Your task to perform on an android device: turn on translation in the chrome app Image 0: 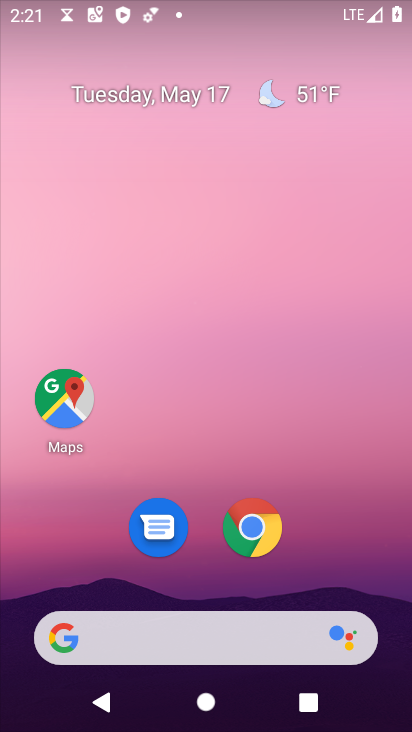
Step 0: click (253, 525)
Your task to perform on an android device: turn on translation in the chrome app Image 1: 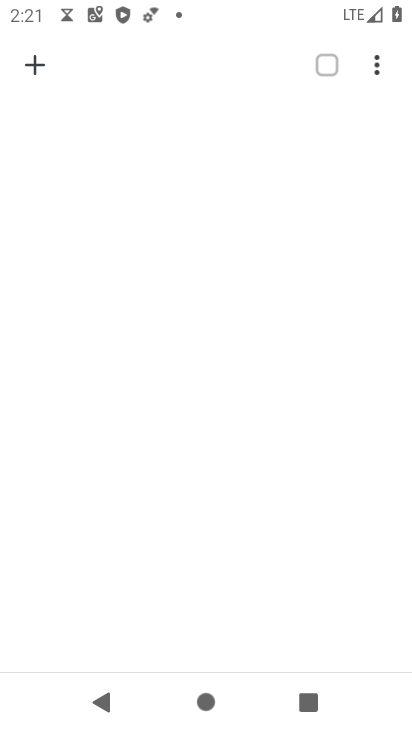
Step 1: click (377, 65)
Your task to perform on an android device: turn on translation in the chrome app Image 2: 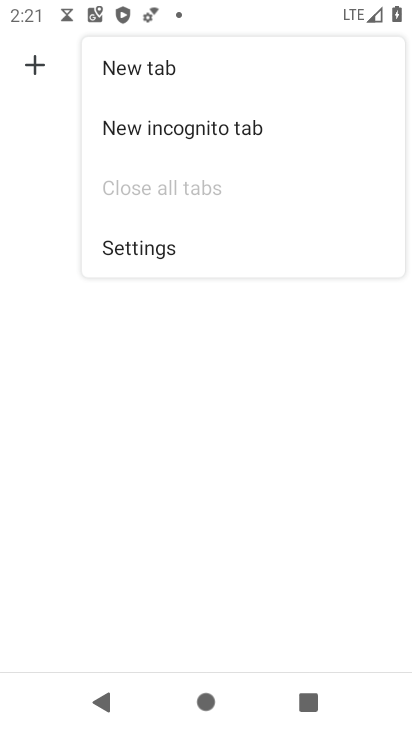
Step 2: click (115, 249)
Your task to perform on an android device: turn on translation in the chrome app Image 3: 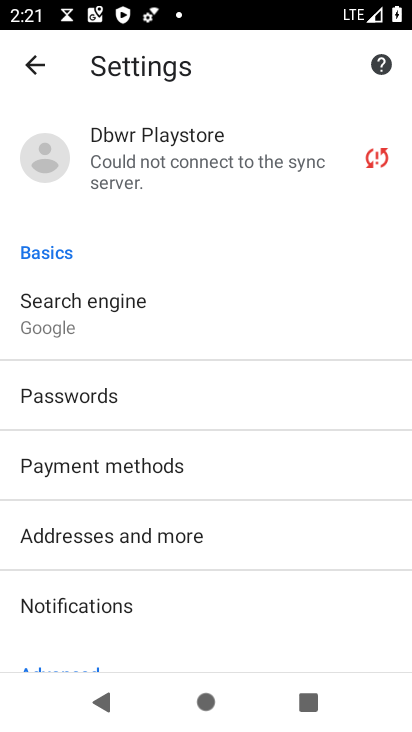
Step 3: drag from (104, 485) to (149, 387)
Your task to perform on an android device: turn on translation in the chrome app Image 4: 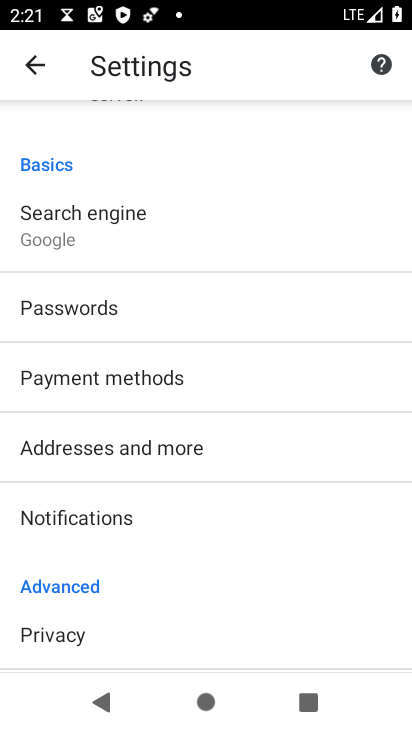
Step 4: drag from (134, 540) to (189, 432)
Your task to perform on an android device: turn on translation in the chrome app Image 5: 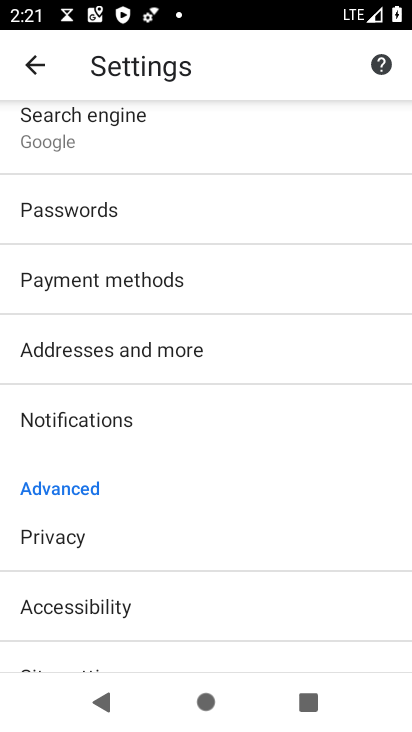
Step 5: drag from (128, 521) to (186, 433)
Your task to perform on an android device: turn on translation in the chrome app Image 6: 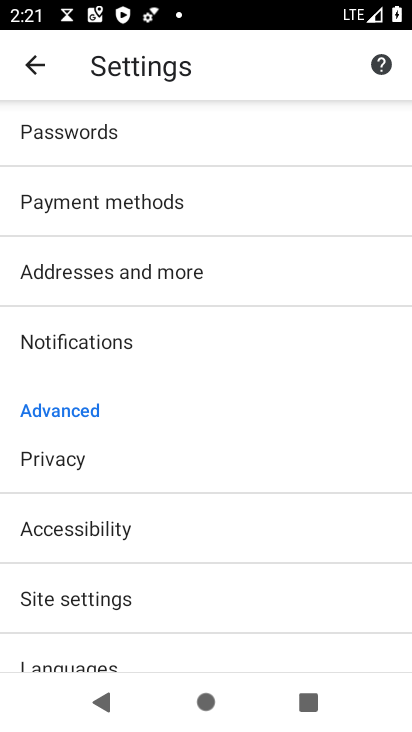
Step 6: drag from (165, 537) to (184, 431)
Your task to perform on an android device: turn on translation in the chrome app Image 7: 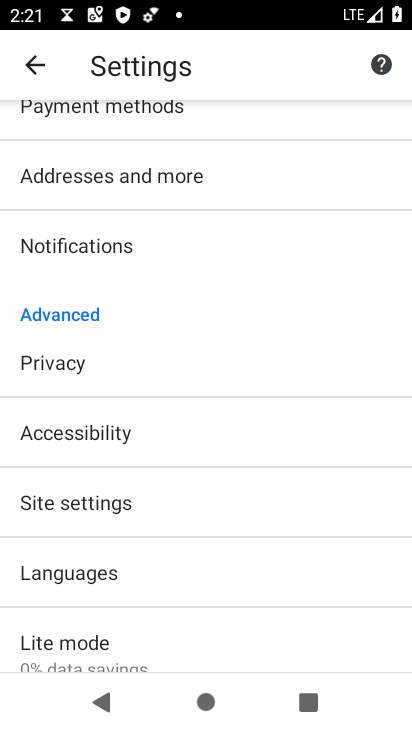
Step 7: click (96, 571)
Your task to perform on an android device: turn on translation in the chrome app Image 8: 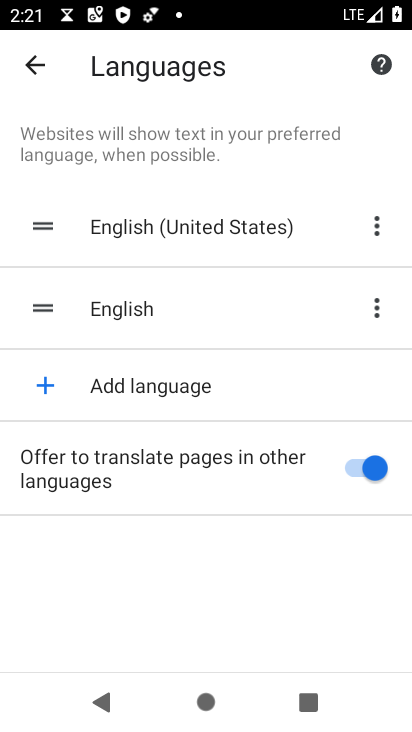
Step 8: task complete